Your task to perform on an android device: empty trash in google photos Image 0: 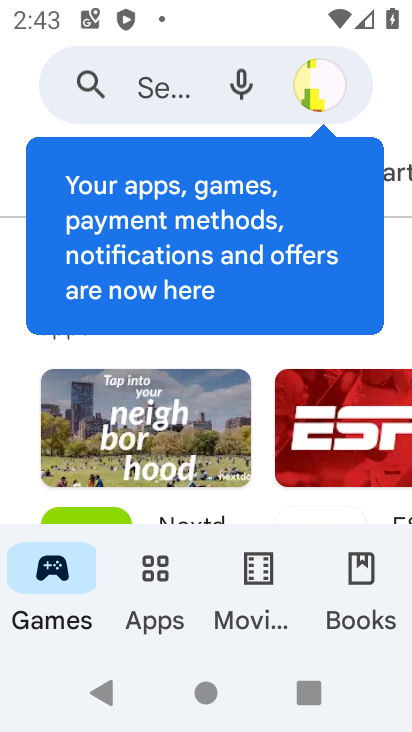
Step 0: press home button
Your task to perform on an android device: empty trash in google photos Image 1: 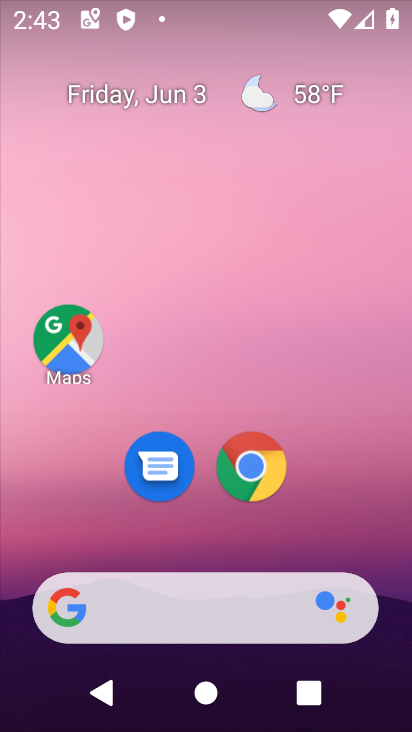
Step 1: drag from (341, 458) to (274, 76)
Your task to perform on an android device: empty trash in google photos Image 2: 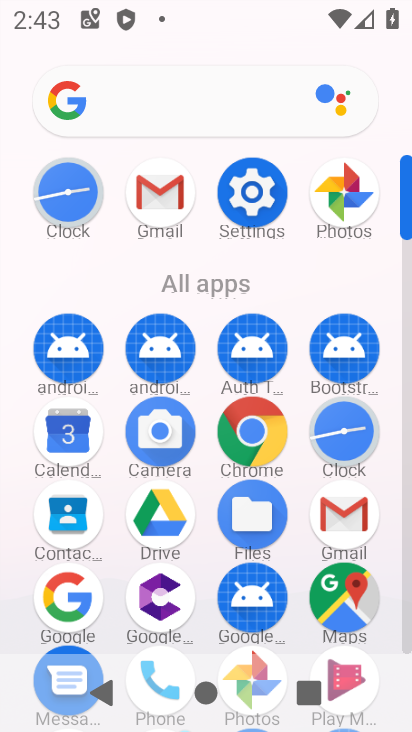
Step 2: click (325, 196)
Your task to perform on an android device: empty trash in google photos Image 3: 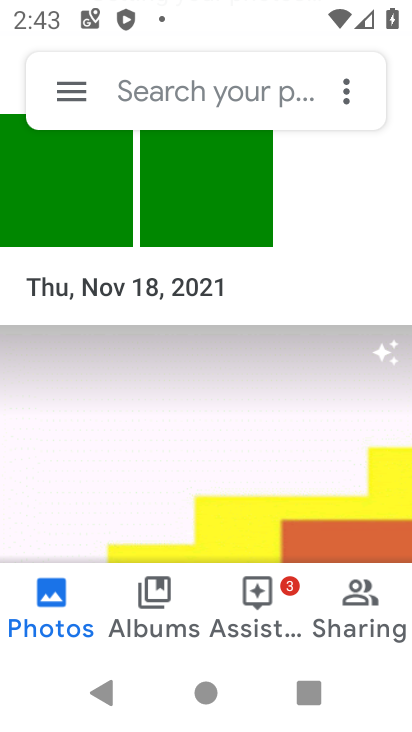
Step 3: click (350, 85)
Your task to perform on an android device: empty trash in google photos Image 4: 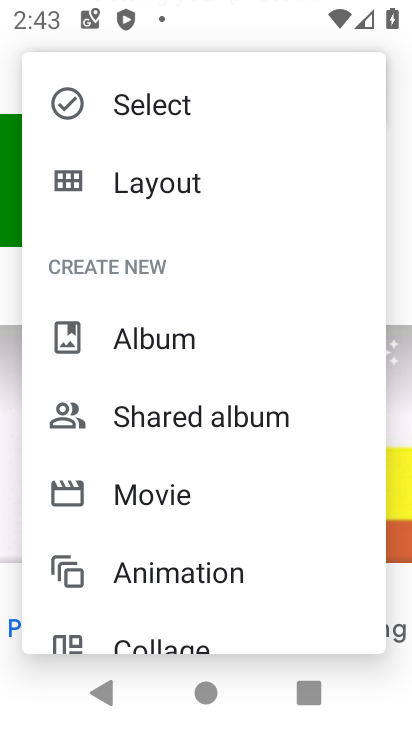
Step 4: drag from (316, 495) to (301, 97)
Your task to perform on an android device: empty trash in google photos Image 5: 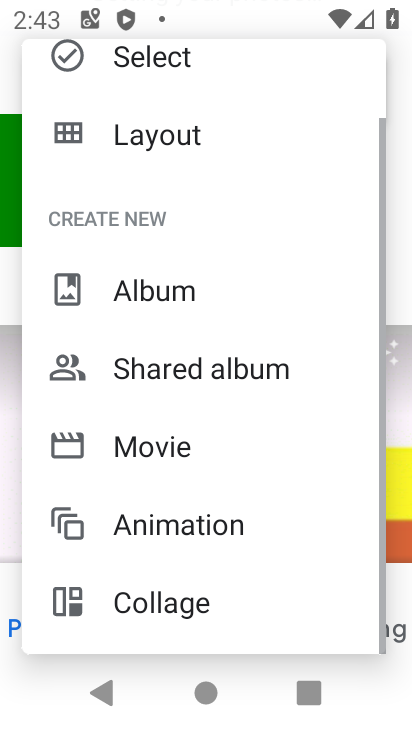
Step 5: drag from (226, 512) to (246, 118)
Your task to perform on an android device: empty trash in google photos Image 6: 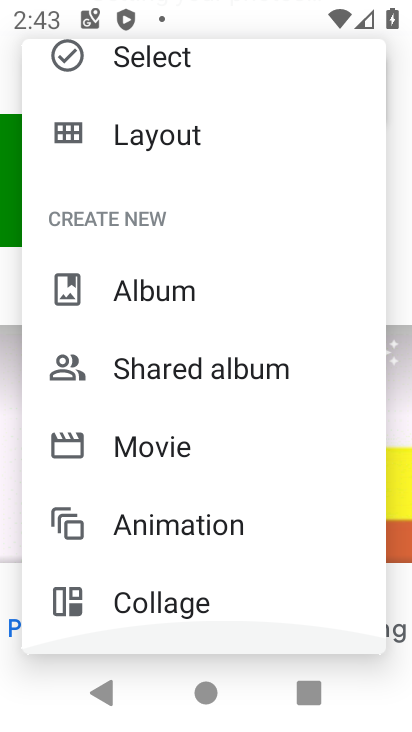
Step 6: drag from (250, 114) to (247, 509)
Your task to perform on an android device: empty trash in google photos Image 7: 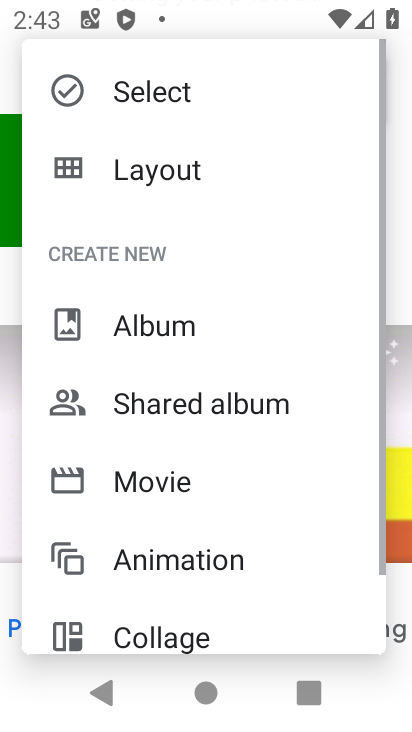
Step 7: drag from (273, 543) to (273, 151)
Your task to perform on an android device: empty trash in google photos Image 8: 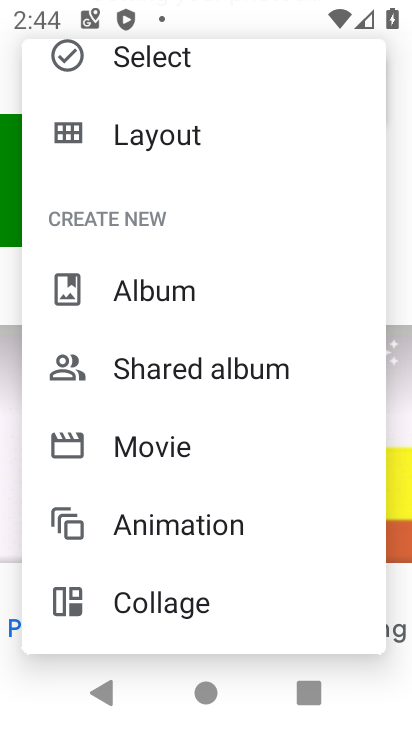
Step 8: press back button
Your task to perform on an android device: empty trash in google photos Image 9: 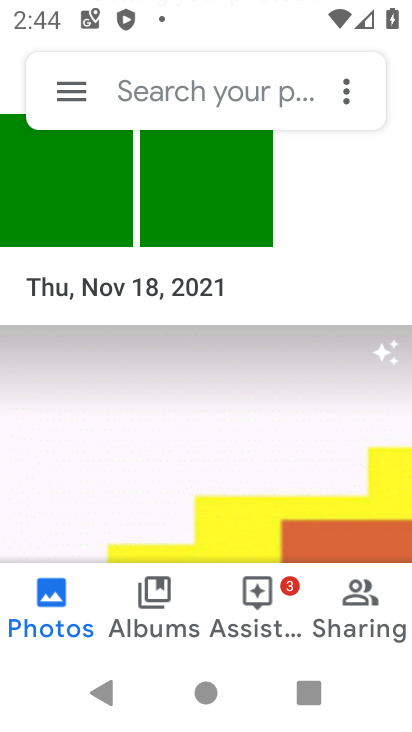
Step 9: click (68, 98)
Your task to perform on an android device: empty trash in google photos Image 10: 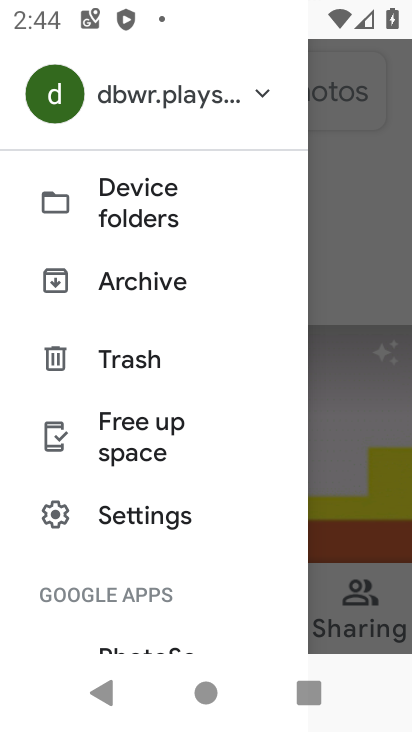
Step 10: click (153, 350)
Your task to perform on an android device: empty trash in google photos Image 11: 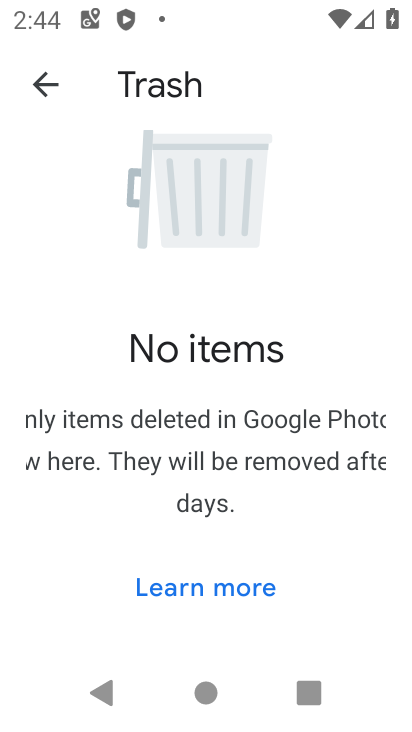
Step 11: task complete